Your task to perform on an android device: Go to Yahoo.com Image 0: 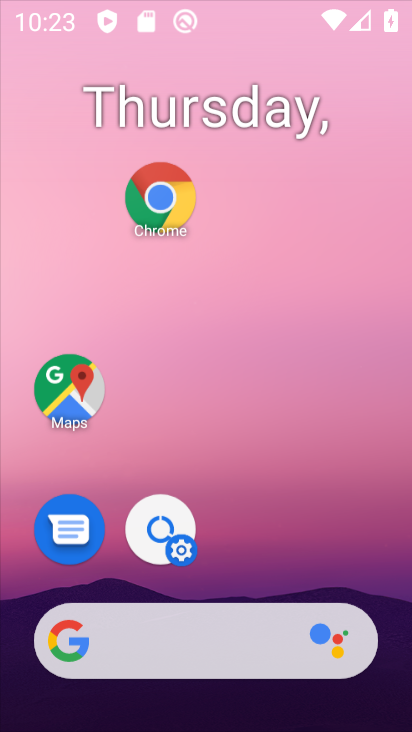
Step 0: drag from (216, 581) to (349, 47)
Your task to perform on an android device: Go to Yahoo.com Image 1: 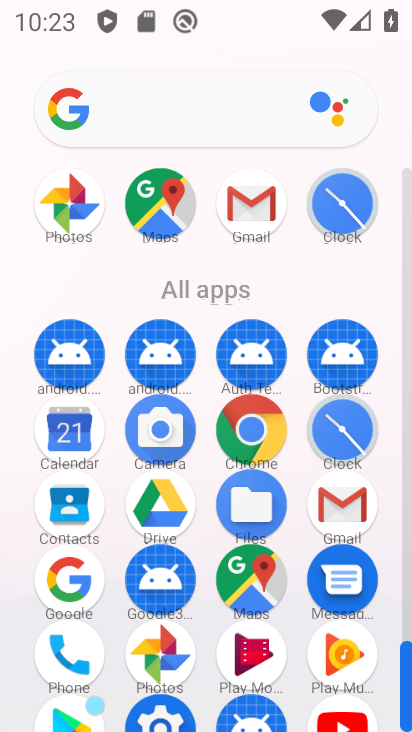
Step 1: click (241, 427)
Your task to perform on an android device: Go to Yahoo.com Image 2: 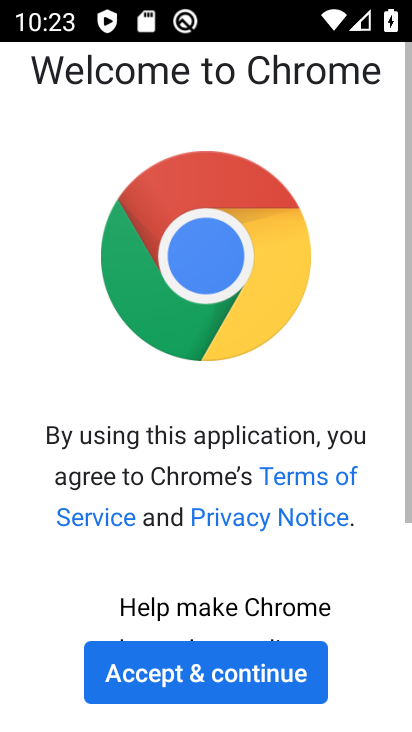
Step 2: click (238, 677)
Your task to perform on an android device: Go to Yahoo.com Image 3: 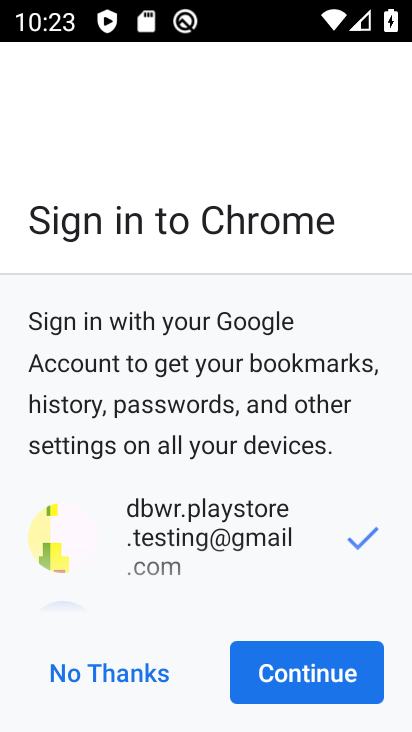
Step 3: click (300, 679)
Your task to perform on an android device: Go to Yahoo.com Image 4: 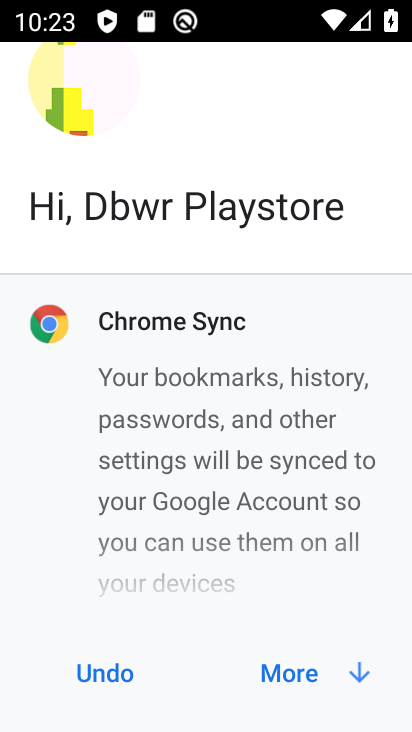
Step 4: click (289, 685)
Your task to perform on an android device: Go to Yahoo.com Image 5: 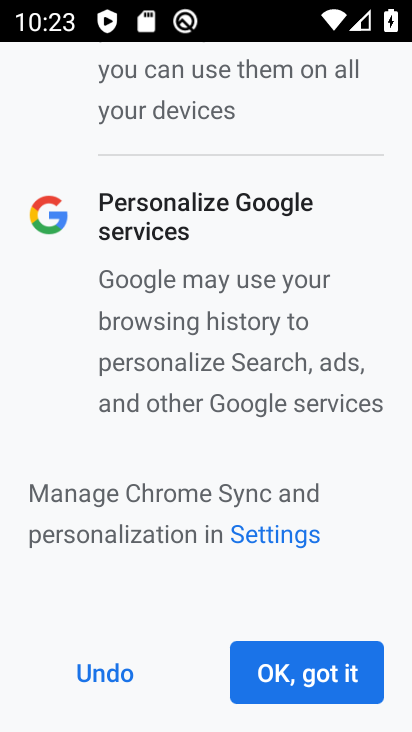
Step 5: click (288, 684)
Your task to perform on an android device: Go to Yahoo.com Image 6: 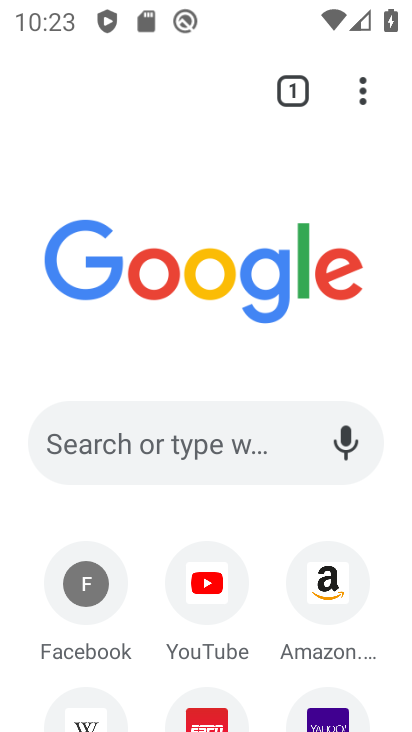
Step 6: drag from (261, 671) to (208, 263)
Your task to perform on an android device: Go to Yahoo.com Image 7: 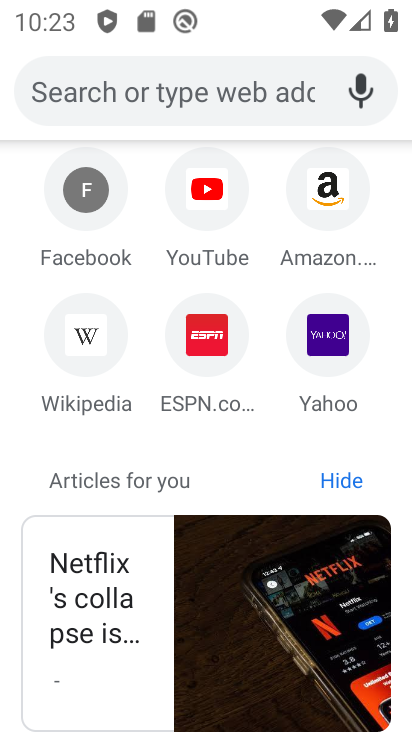
Step 7: click (322, 352)
Your task to perform on an android device: Go to Yahoo.com Image 8: 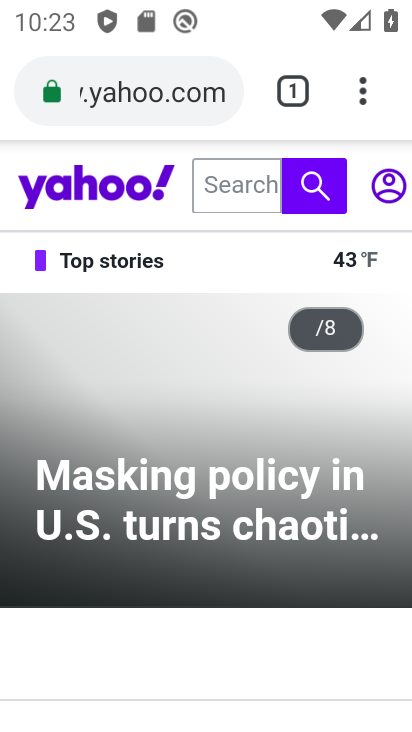
Step 8: task complete